Your task to perform on an android device: Play the new Bruno Mars video on YouTube Image 0: 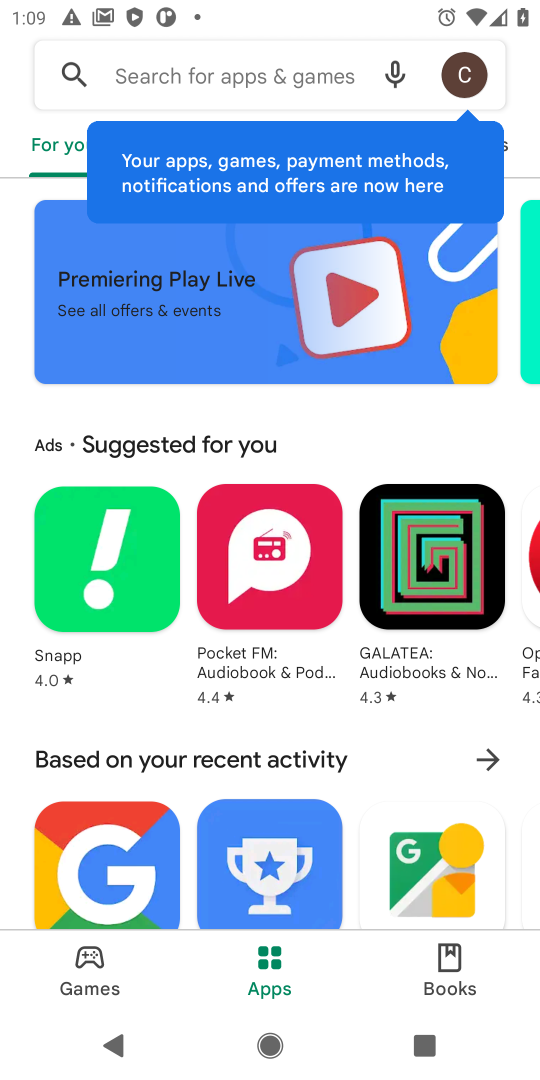
Step 0: press home button
Your task to perform on an android device: Play the new Bruno Mars video on YouTube Image 1: 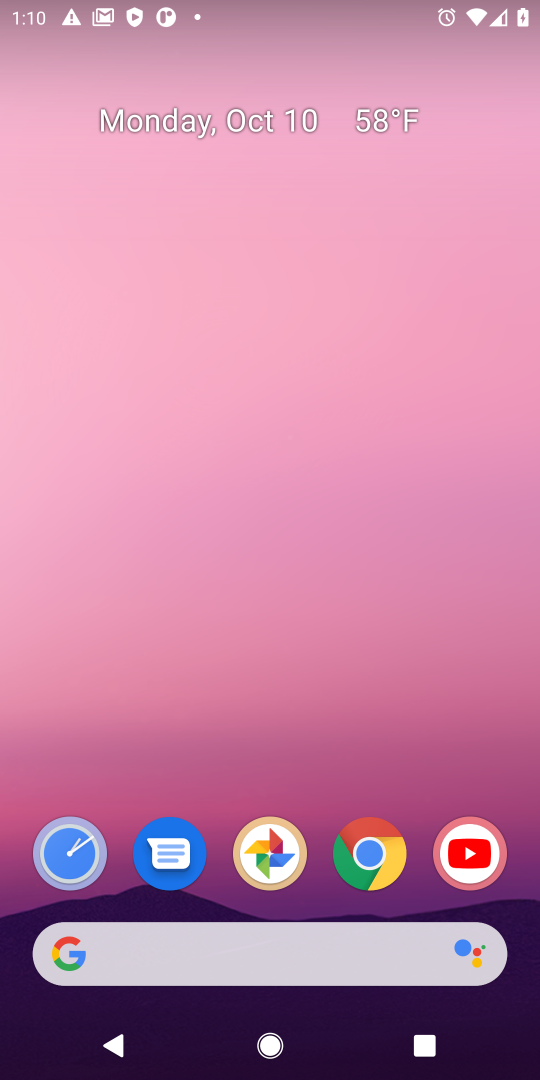
Step 1: click (464, 859)
Your task to perform on an android device: Play the new Bruno Mars video on YouTube Image 2: 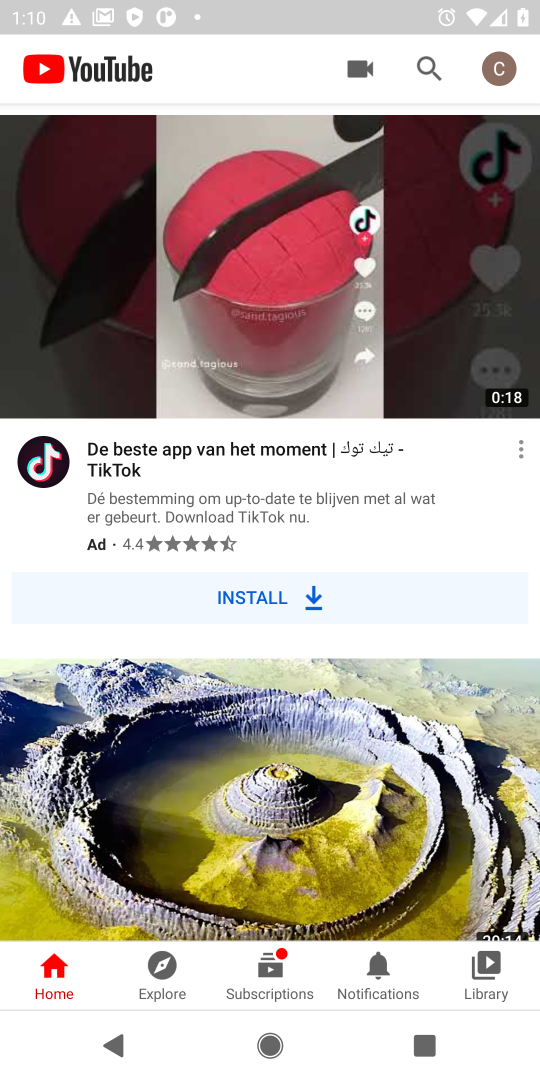
Step 2: click (422, 66)
Your task to perform on an android device: Play the new Bruno Mars video on YouTube Image 3: 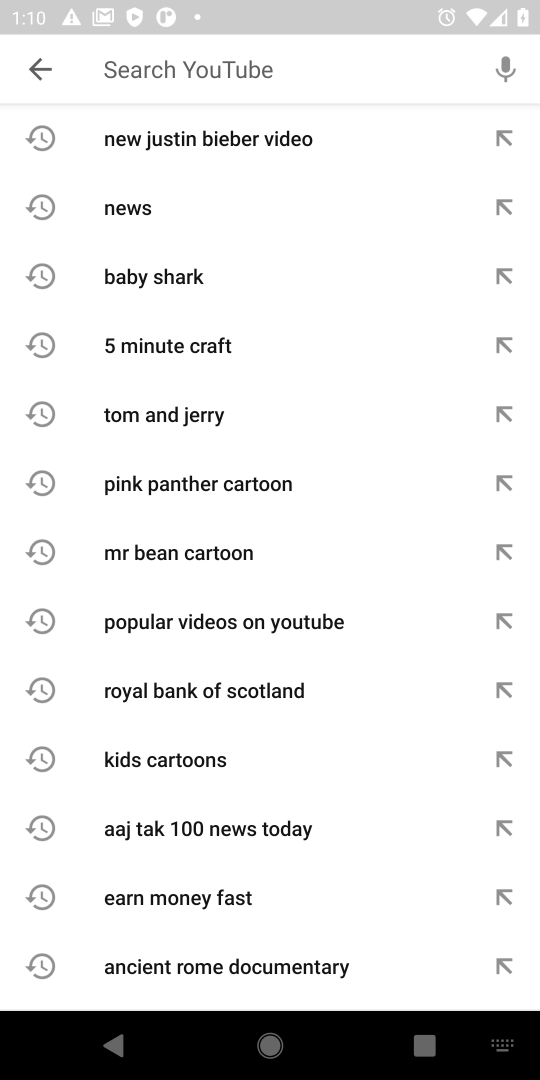
Step 3: type "bruni mars"
Your task to perform on an android device: Play the new Bruno Mars video on YouTube Image 4: 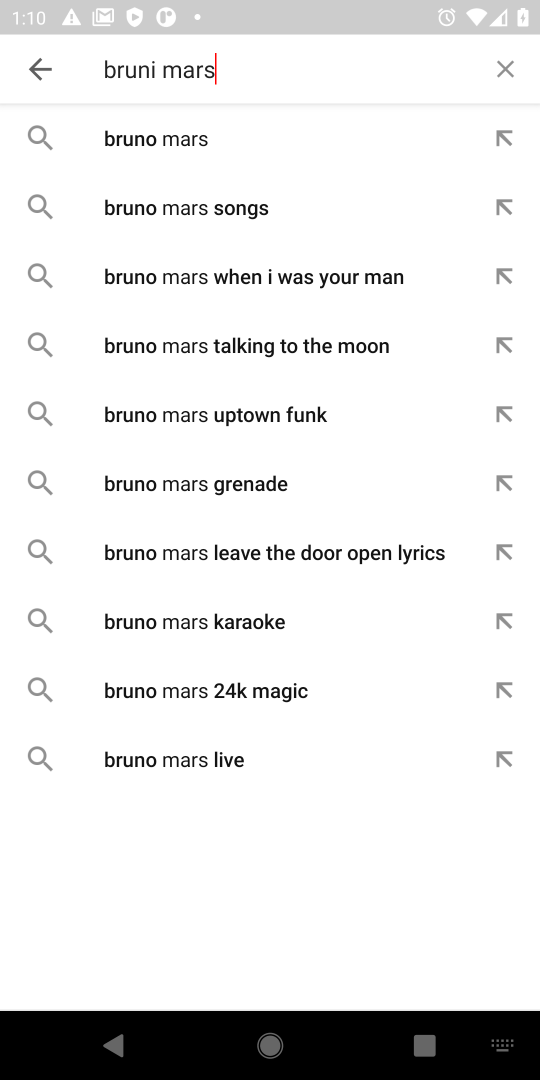
Step 4: click (236, 126)
Your task to perform on an android device: Play the new Bruno Mars video on YouTube Image 5: 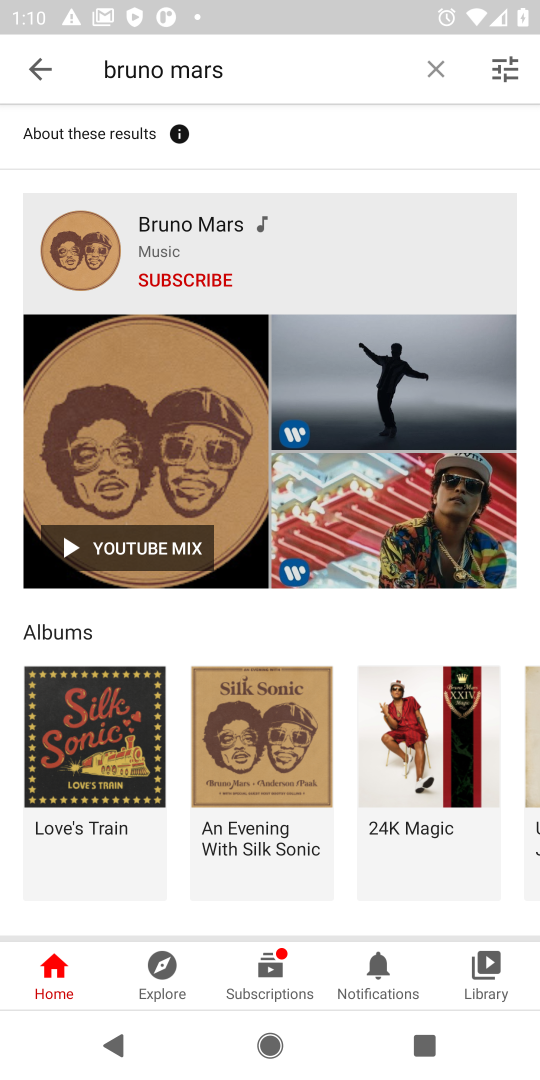
Step 5: click (75, 271)
Your task to perform on an android device: Play the new Bruno Mars video on YouTube Image 6: 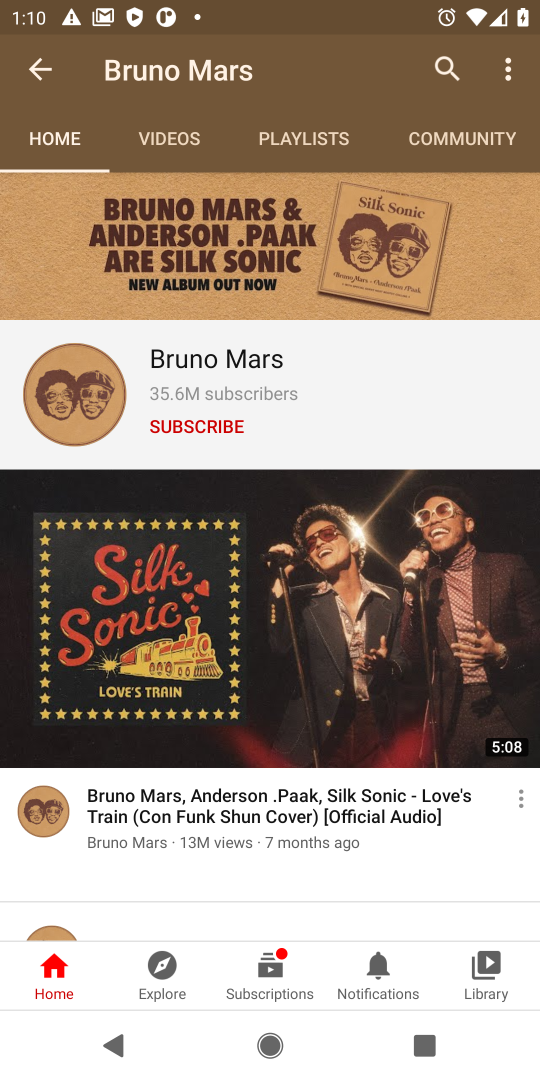
Step 6: click (178, 142)
Your task to perform on an android device: Play the new Bruno Mars video on YouTube Image 7: 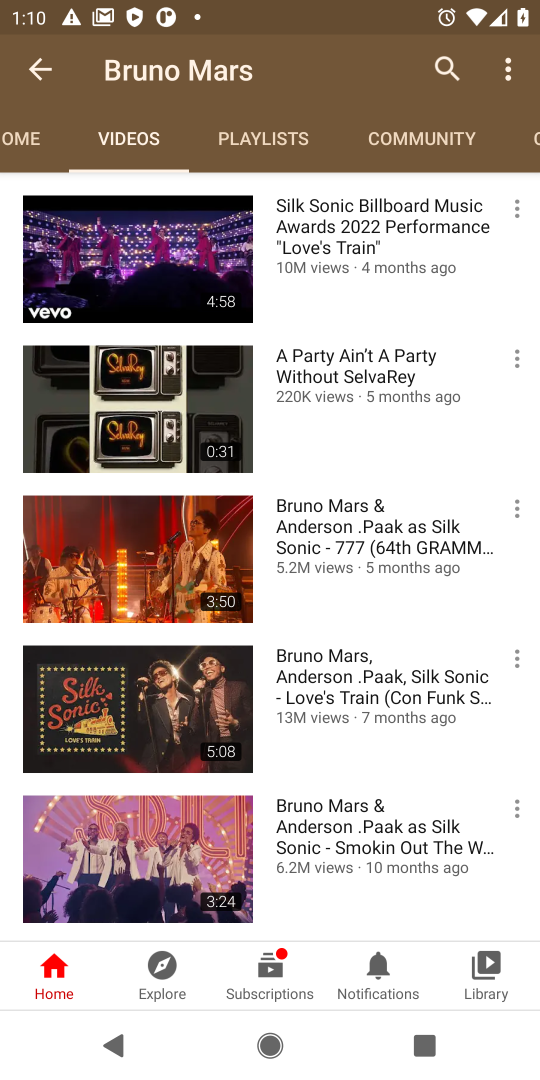
Step 7: click (188, 248)
Your task to perform on an android device: Play the new Bruno Mars video on YouTube Image 8: 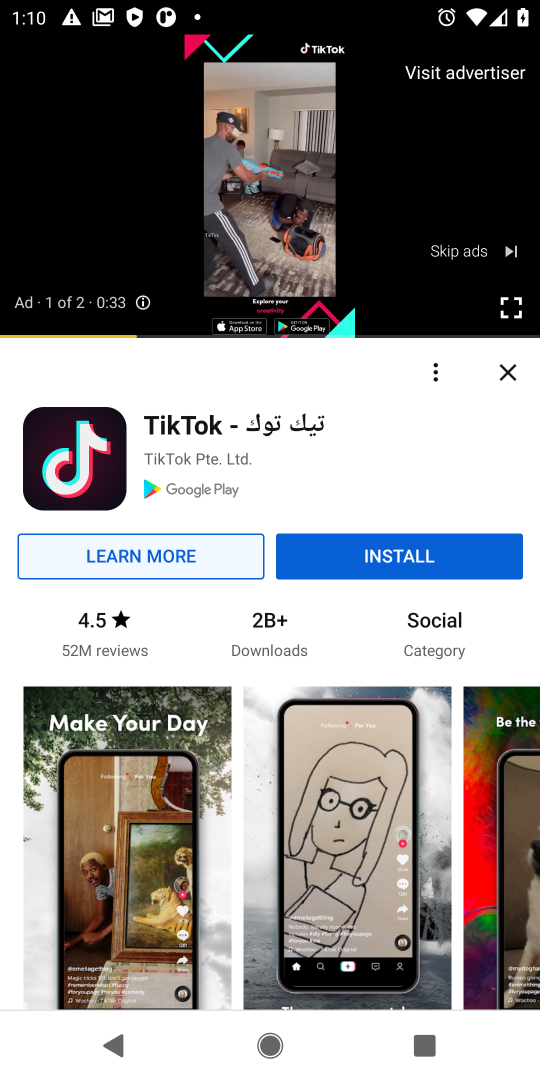
Step 8: click (459, 264)
Your task to perform on an android device: Play the new Bruno Mars video on YouTube Image 9: 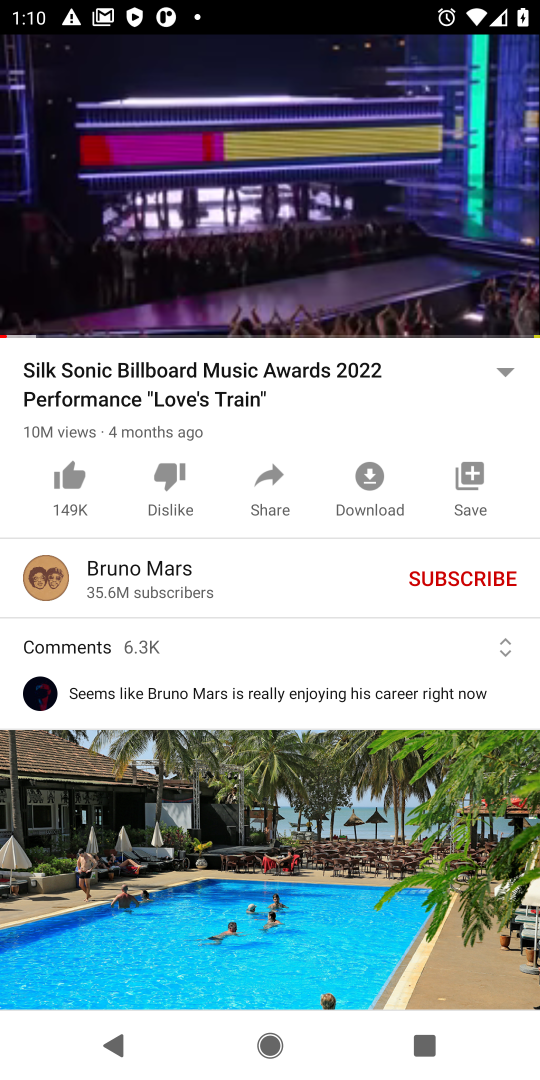
Step 9: task complete